Your task to perform on an android device: Open privacy settings Image 0: 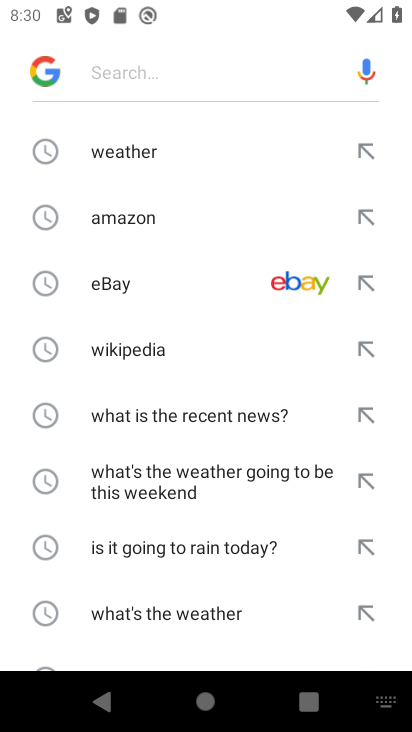
Step 0: press home button
Your task to perform on an android device: Open privacy settings Image 1: 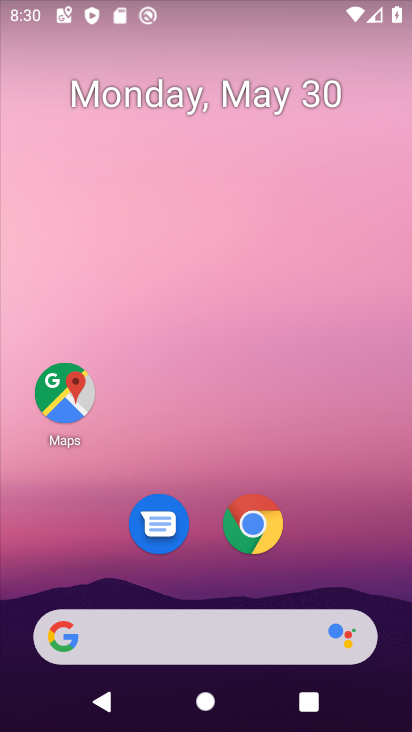
Step 1: drag from (319, 543) to (379, 50)
Your task to perform on an android device: Open privacy settings Image 2: 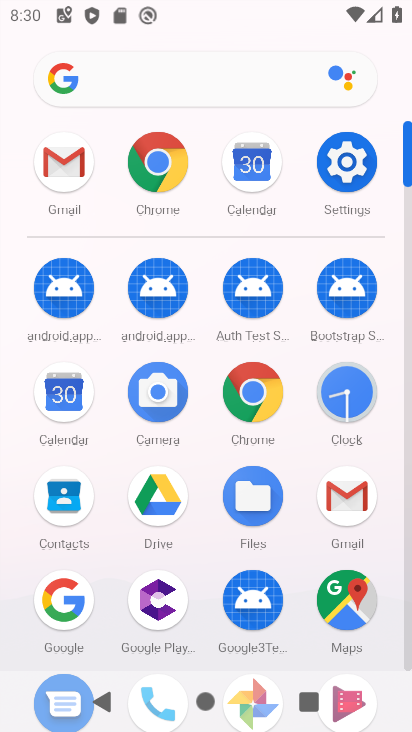
Step 2: click (351, 152)
Your task to perform on an android device: Open privacy settings Image 3: 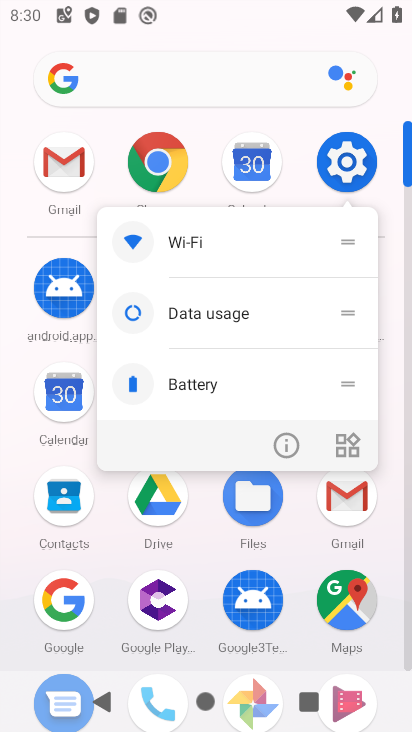
Step 3: click (351, 151)
Your task to perform on an android device: Open privacy settings Image 4: 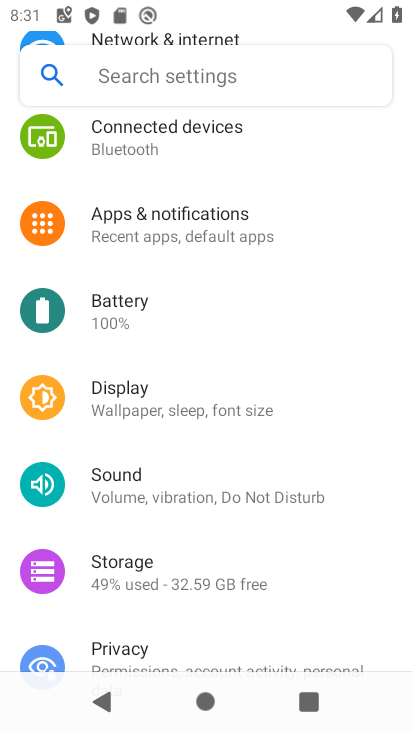
Step 4: drag from (231, 360) to (236, 97)
Your task to perform on an android device: Open privacy settings Image 5: 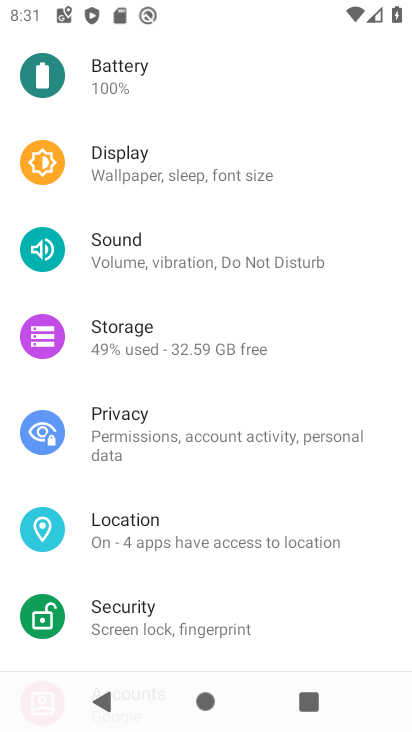
Step 5: click (213, 420)
Your task to perform on an android device: Open privacy settings Image 6: 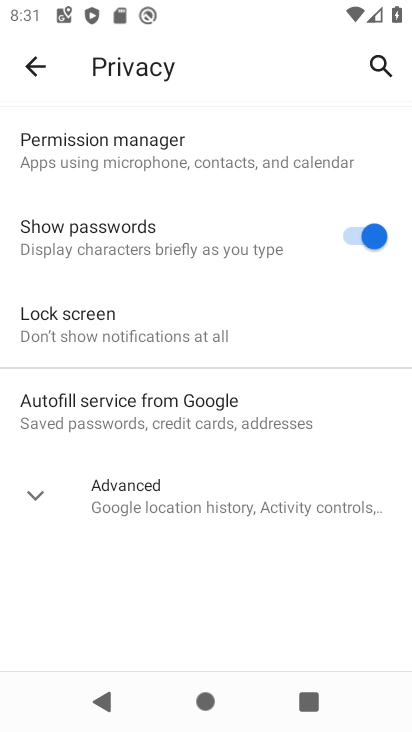
Step 6: task complete